Your task to perform on an android device: open chrome privacy settings Image 0: 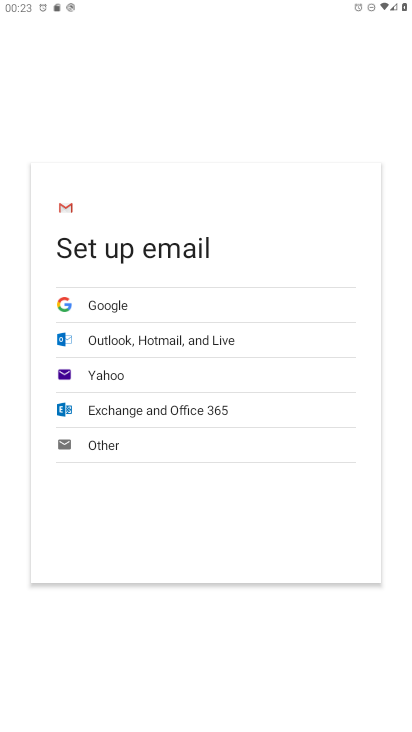
Step 0: press home button
Your task to perform on an android device: open chrome privacy settings Image 1: 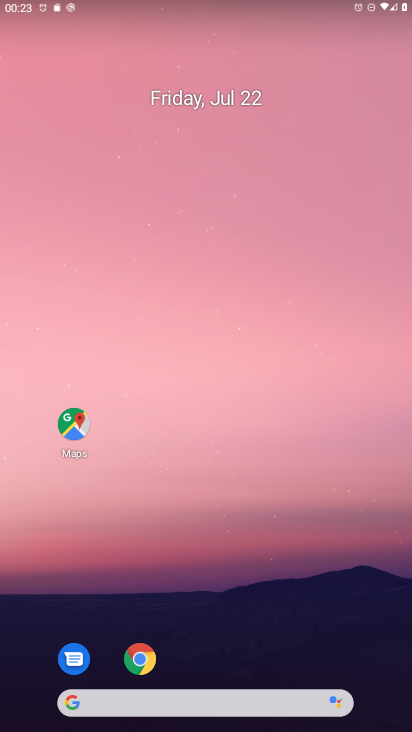
Step 1: click (141, 660)
Your task to perform on an android device: open chrome privacy settings Image 2: 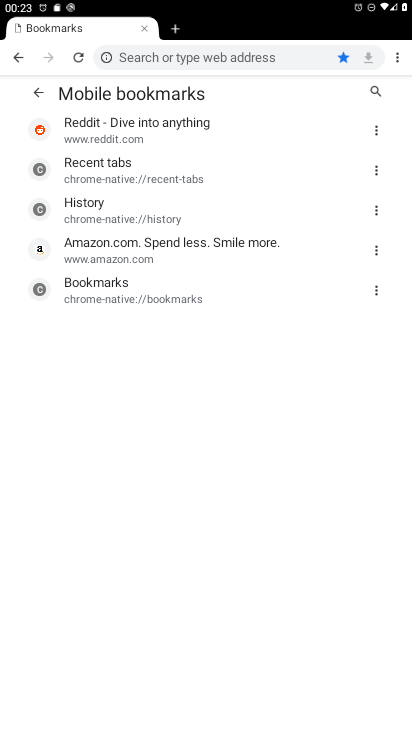
Step 2: click (400, 57)
Your task to perform on an android device: open chrome privacy settings Image 3: 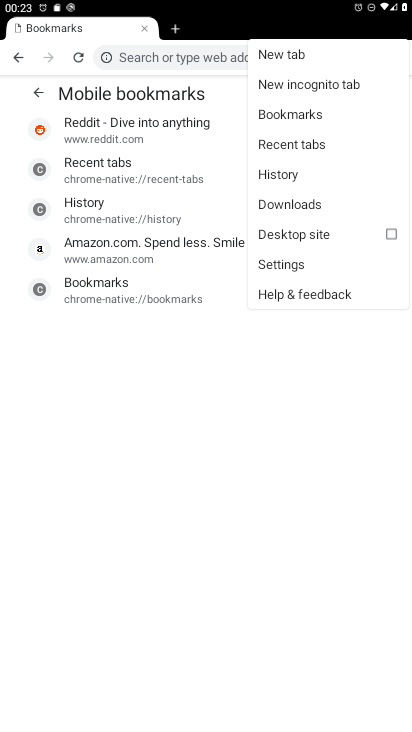
Step 3: click (289, 260)
Your task to perform on an android device: open chrome privacy settings Image 4: 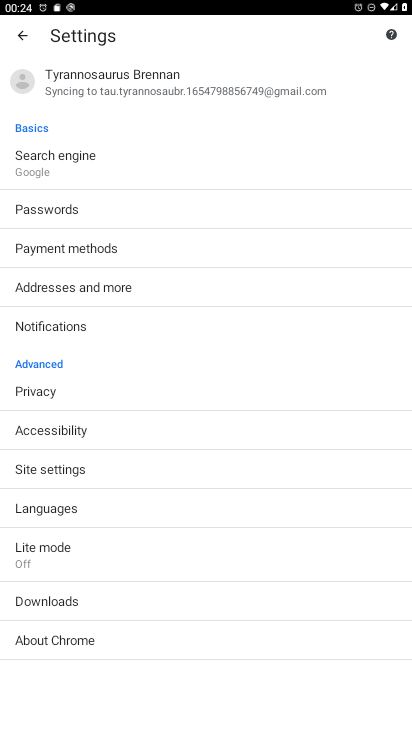
Step 4: click (49, 389)
Your task to perform on an android device: open chrome privacy settings Image 5: 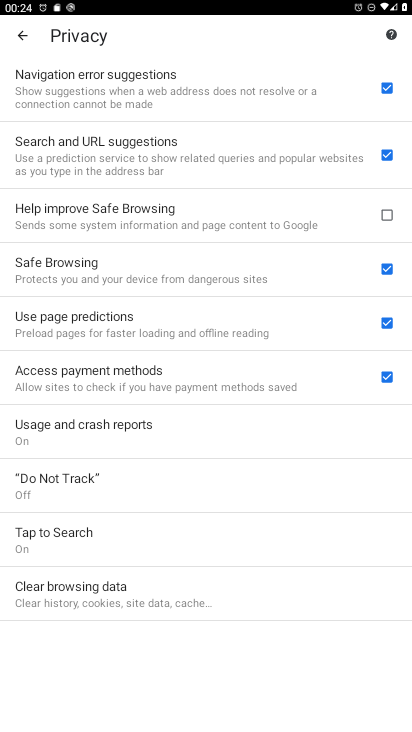
Step 5: task complete